Your task to perform on an android device: see sites visited before in the chrome app Image 0: 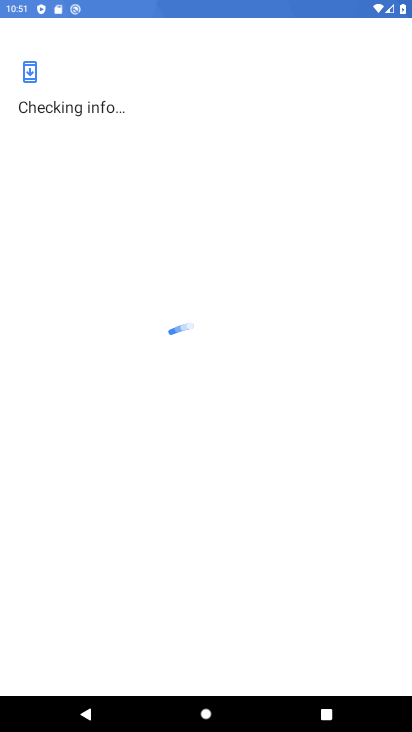
Step 0: press home button
Your task to perform on an android device: see sites visited before in the chrome app Image 1: 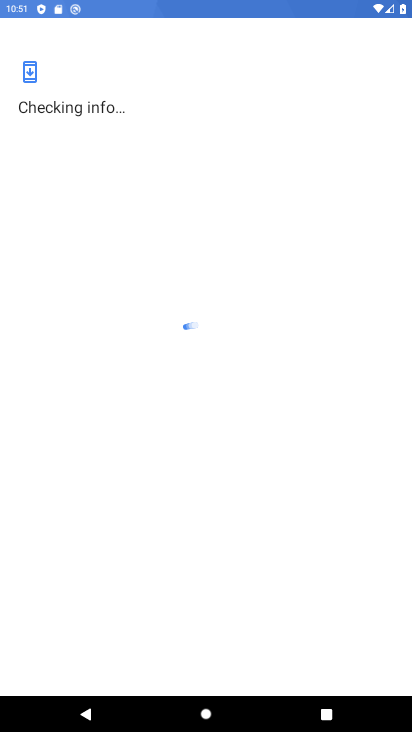
Step 1: click (285, 140)
Your task to perform on an android device: see sites visited before in the chrome app Image 2: 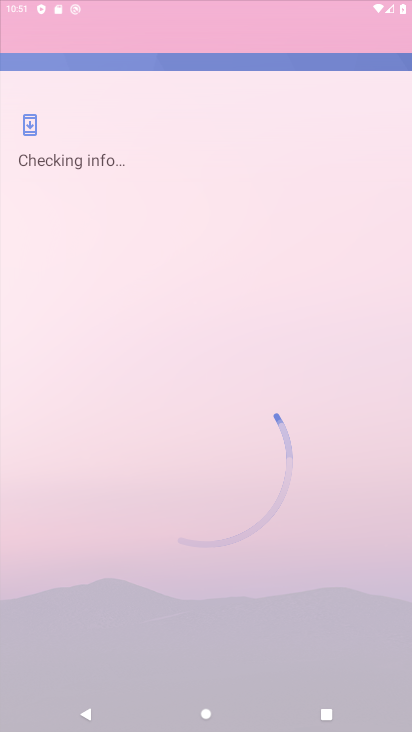
Step 2: drag from (219, 322) to (248, 122)
Your task to perform on an android device: see sites visited before in the chrome app Image 3: 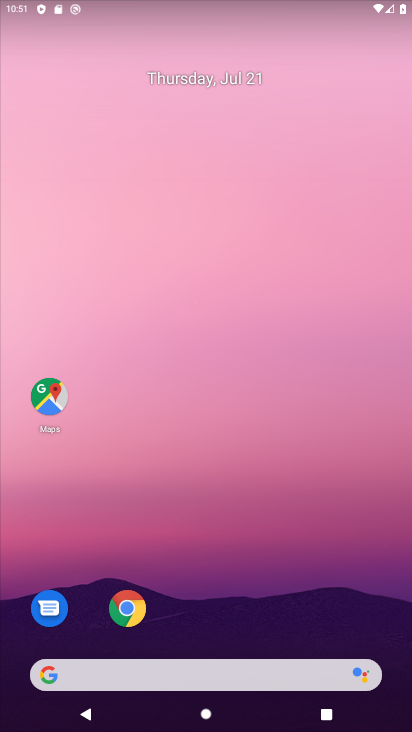
Step 3: drag from (182, 550) to (217, 173)
Your task to perform on an android device: see sites visited before in the chrome app Image 4: 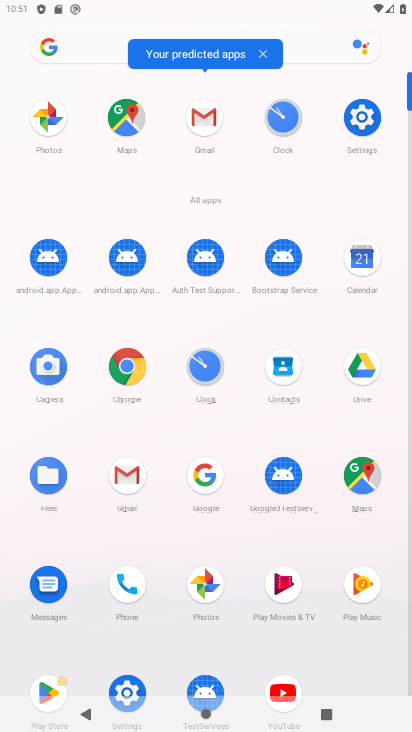
Step 4: click (128, 358)
Your task to perform on an android device: see sites visited before in the chrome app Image 5: 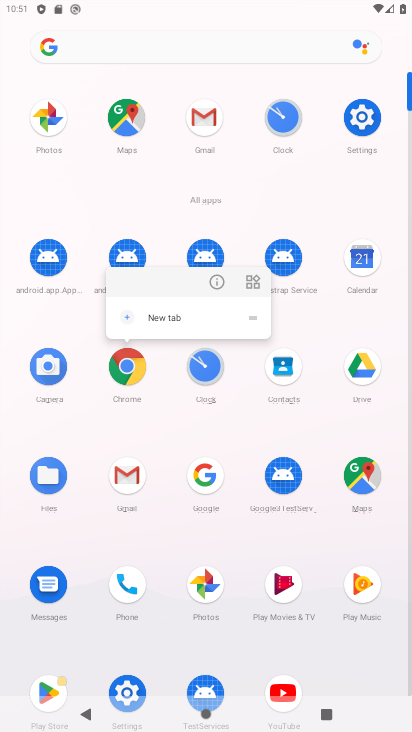
Step 5: click (216, 277)
Your task to perform on an android device: see sites visited before in the chrome app Image 6: 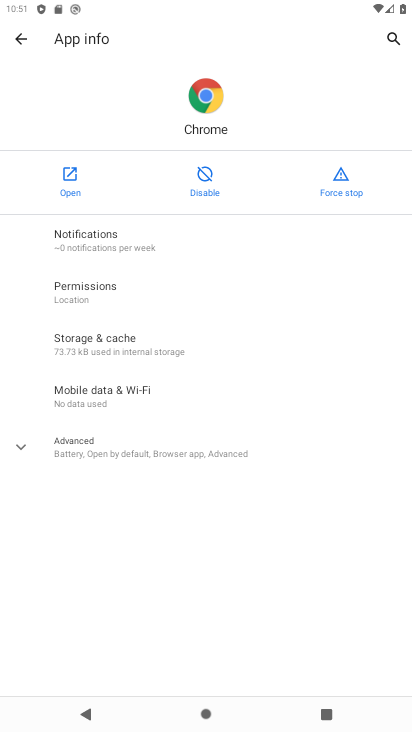
Step 6: click (64, 167)
Your task to perform on an android device: see sites visited before in the chrome app Image 7: 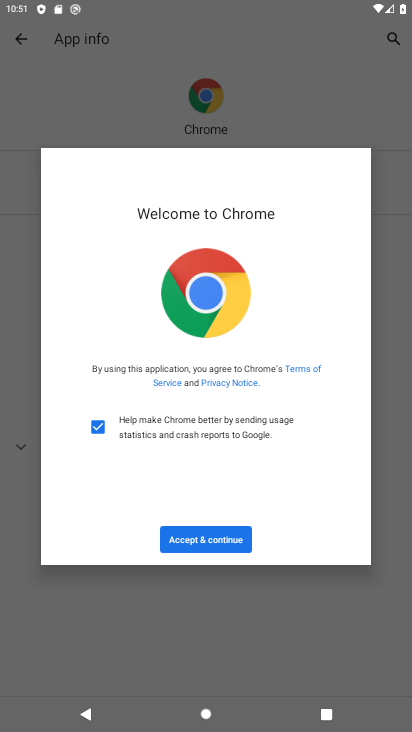
Step 7: drag from (171, 458) to (203, 252)
Your task to perform on an android device: see sites visited before in the chrome app Image 8: 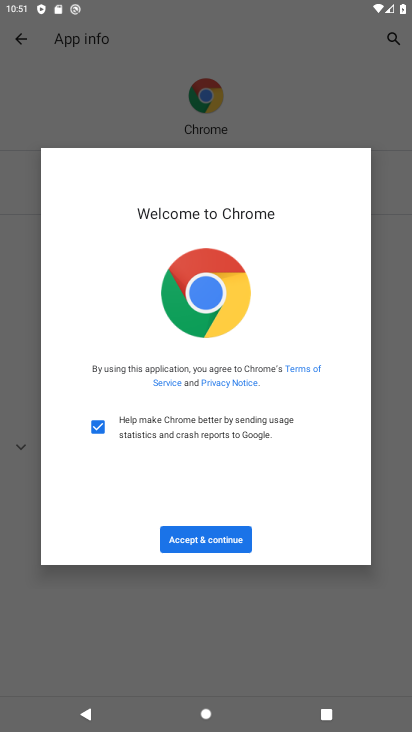
Step 8: click (188, 543)
Your task to perform on an android device: see sites visited before in the chrome app Image 9: 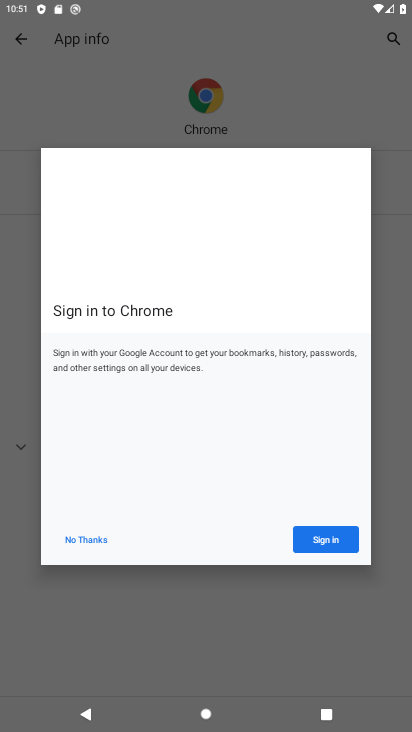
Step 9: click (69, 547)
Your task to perform on an android device: see sites visited before in the chrome app Image 10: 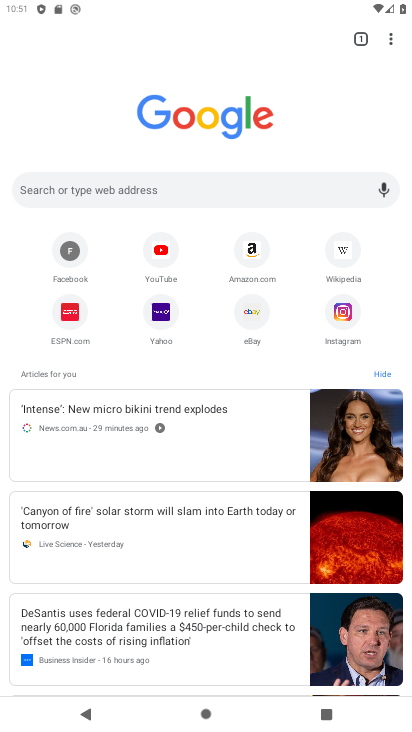
Step 10: task complete